Your task to perform on an android device: Go to internet settings Image 0: 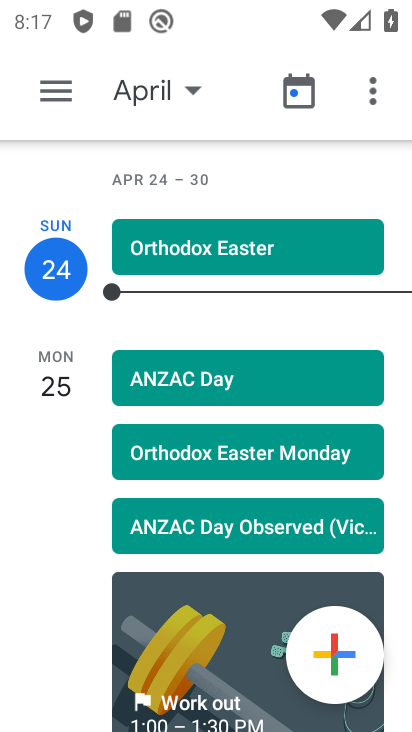
Step 0: press home button
Your task to perform on an android device: Go to internet settings Image 1: 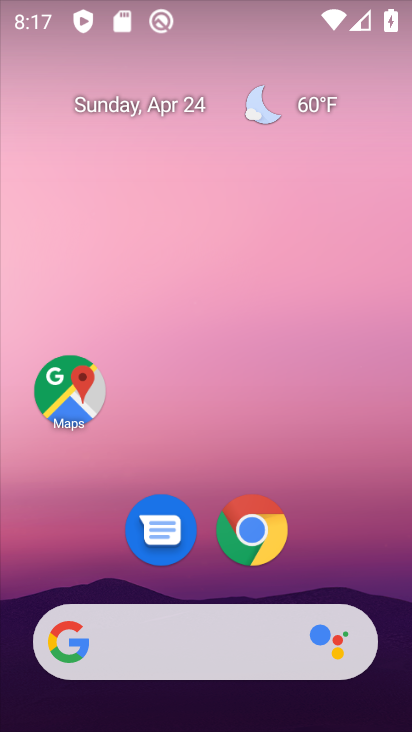
Step 1: drag from (158, 609) to (295, 42)
Your task to perform on an android device: Go to internet settings Image 2: 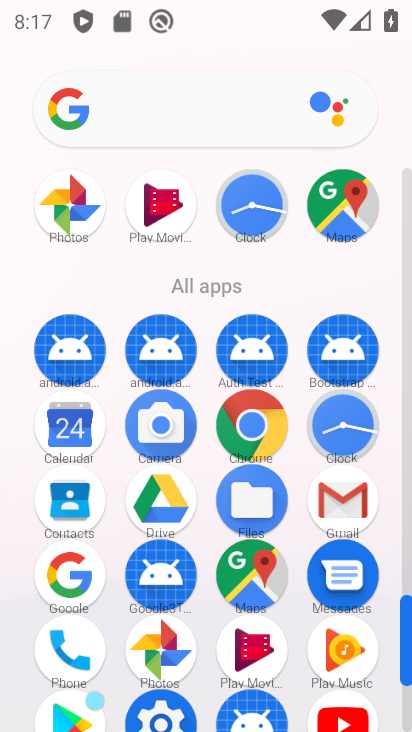
Step 2: drag from (150, 581) to (237, 329)
Your task to perform on an android device: Go to internet settings Image 3: 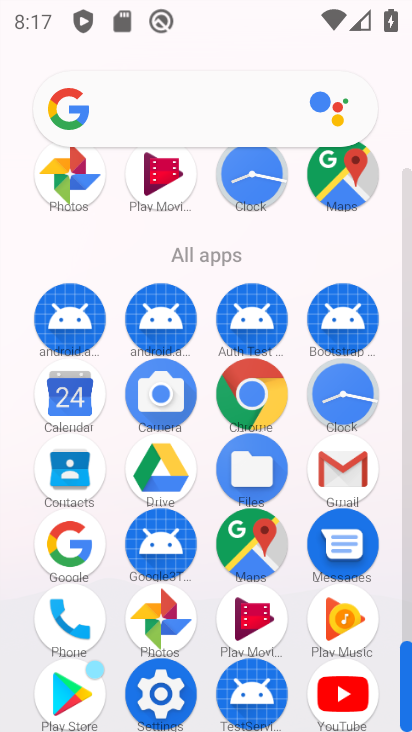
Step 3: click (158, 687)
Your task to perform on an android device: Go to internet settings Image 4: 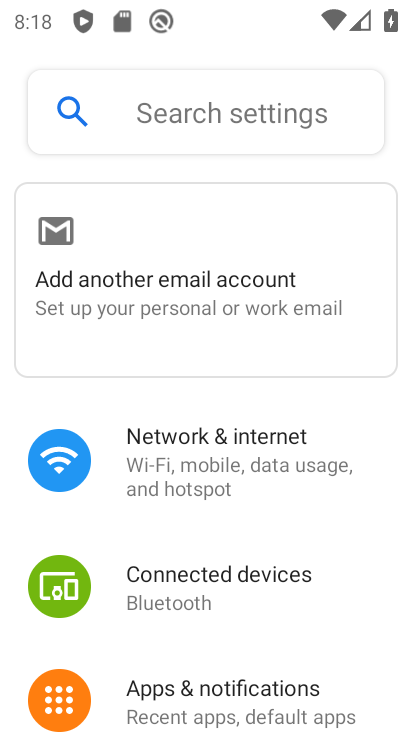
Step 4: click (295, 471)
Your task to perform on an android device: Go to internet settings Image 5: 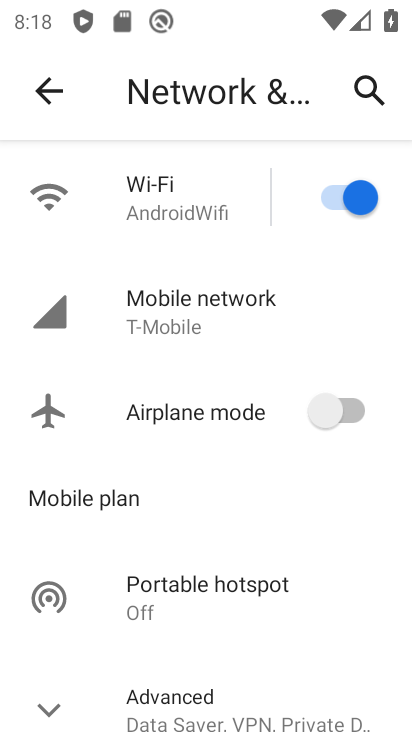
Step 5: click (245, 329)
Your task to perform on an android device: Go to internet settings Image 6: 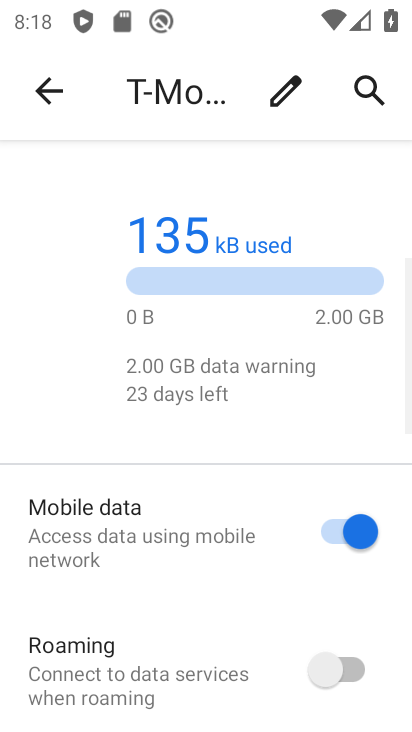
Step 6: task complete